Your task to perform on an android device: change notifications settings Image 0: 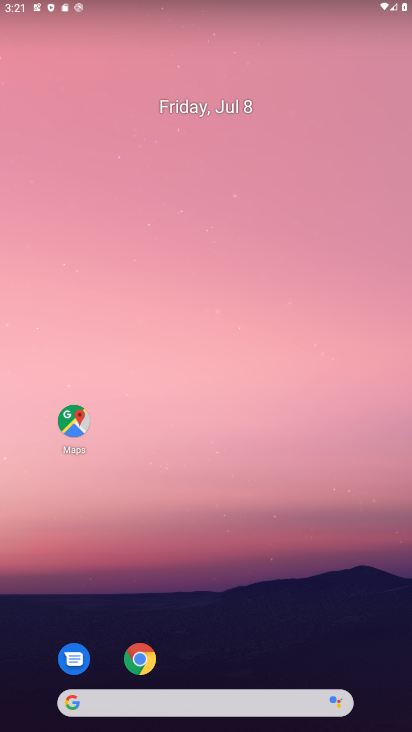
Step 0: drag from (237, 639) to (239, 231)
Your task to perform on an android device: change notifications settings Image 1: 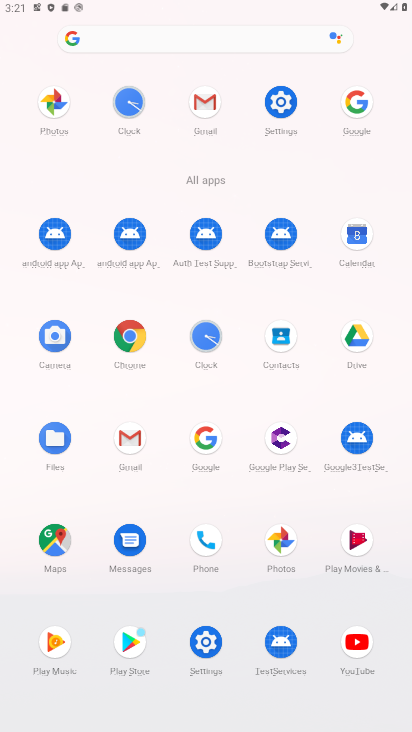
Step 1: click (277, 120)
Your task to perform on an android device: change notifications settings Image 2: 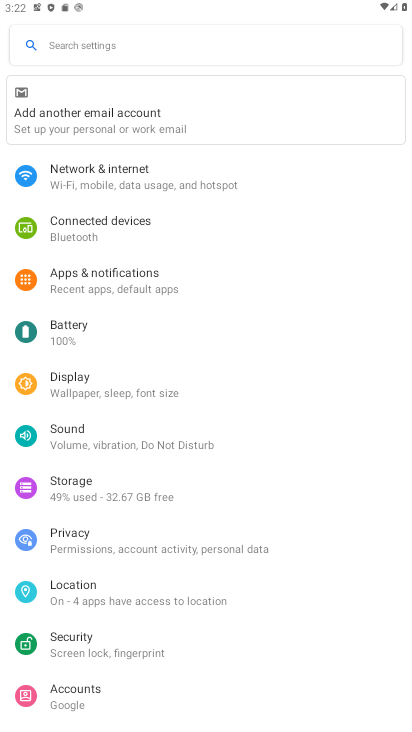
Step 2: click (194, 276)
Your task to perform on an android device: change notifications settings Image 3: 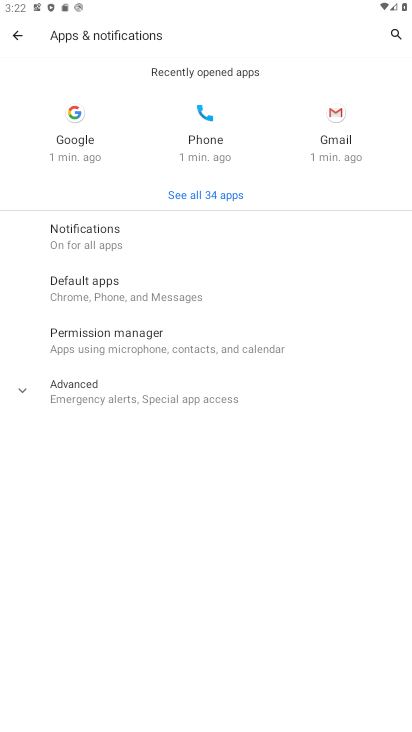
Step 3: click (168, 231)
Your task to perform on an android device: change notifications settings Image 4: 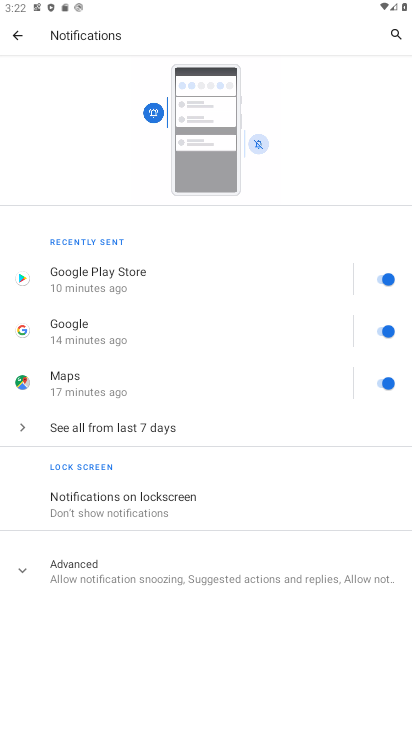
Step 4: click (142, 578)
Your task to perform on an android device: change notifications settings Image 5: 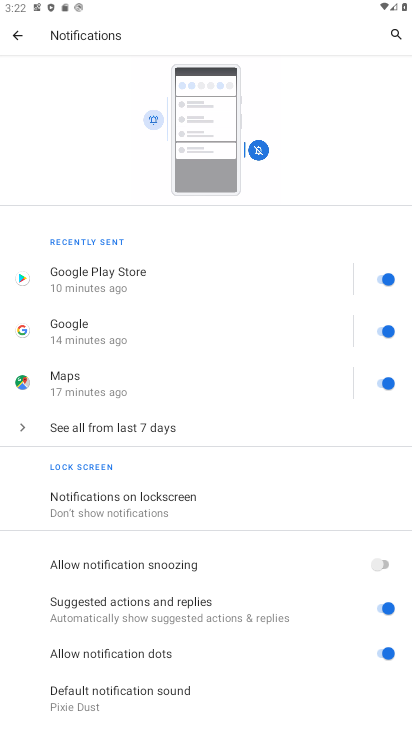
Step 5: click (165, 506)
Your task to perform on an android device: change notifications settings Image 6: 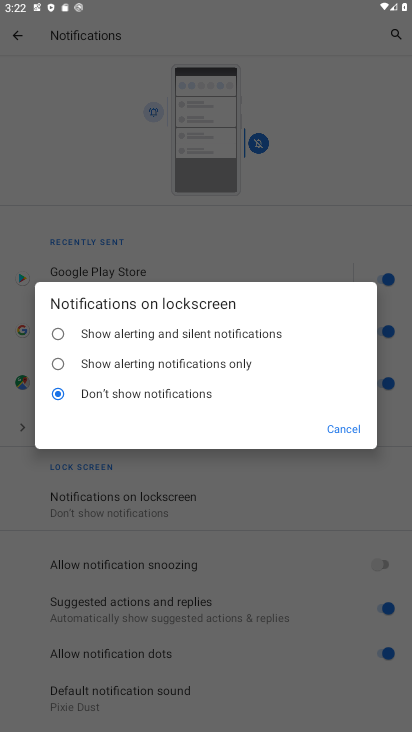
Step 6: click (121, 338)
Your task to perform on an android device: change notifications settings Image 7: 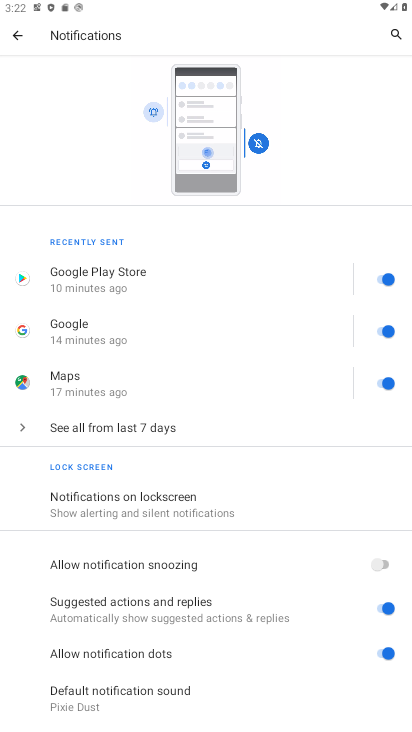
Step 7: task complete